Your task to perform on an android device: star an email in the gmail app Image 0: 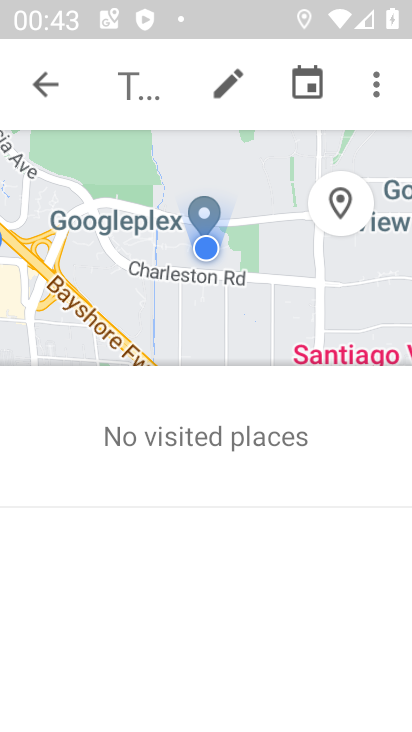
Step 0: press home button
Your task to perform on an android device: star an email in the gmail app Image 1: 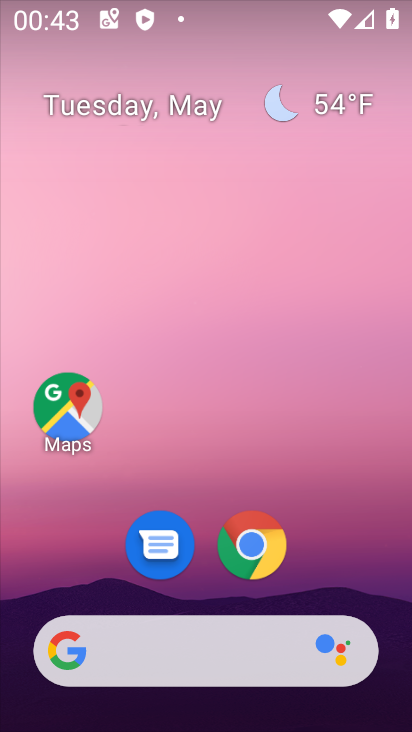
Step 1: drag from (347, 298) to (328, 41)
Your task to perform on an android device: star an email in the gmail app Image 2: 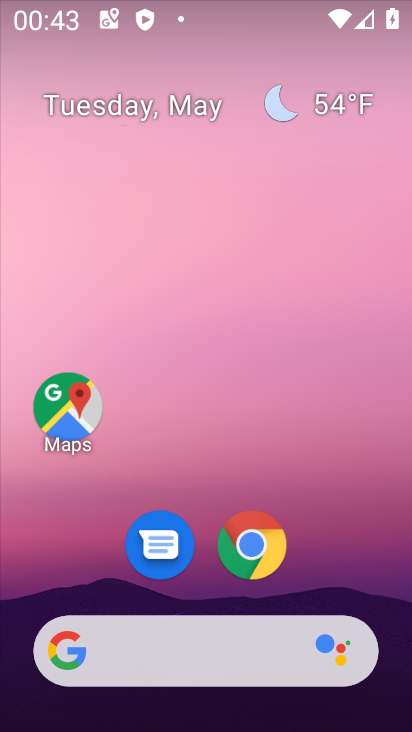
Step 2: drag from (307, 602) to (303, 187)
Your task to perform on an android device: star an email in the gmail app Image 3: 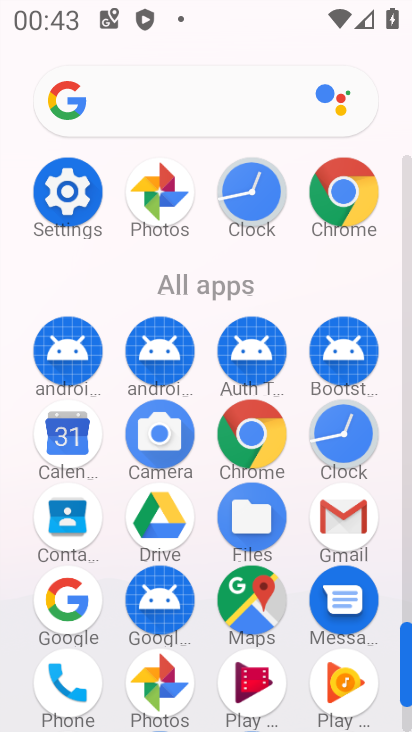
Step 3: click (340, 524)
Your task to perform on an android device: star an email in the gmail app Image 4: 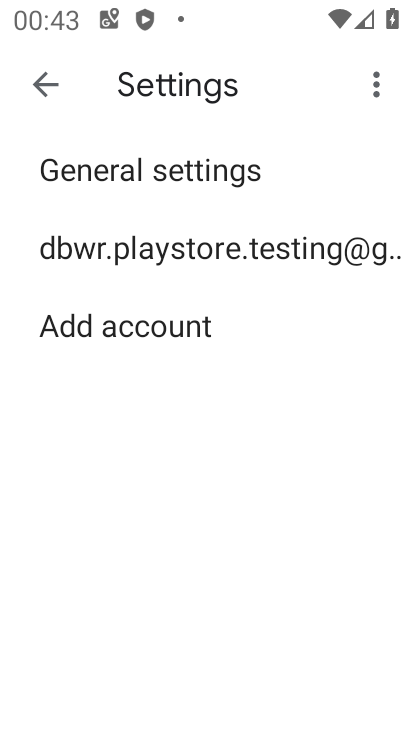
Step 4: click (60, 94)
Your task to perform on an android device: star an email in the gmail app Image 5: 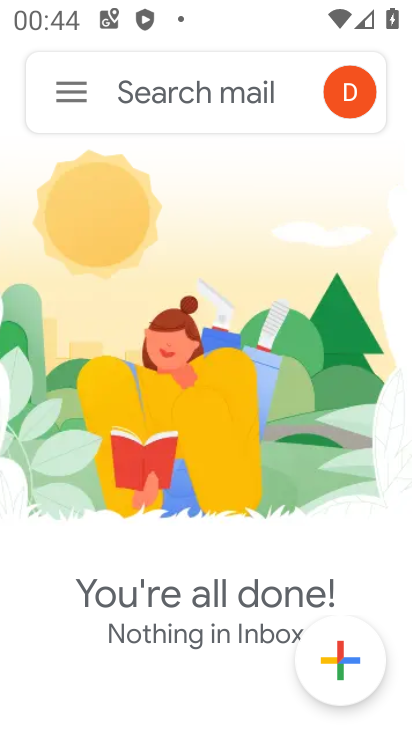
Step 5: click (58, 80)
Your task to perform on an android device: star an email in the gmail app Image 6: 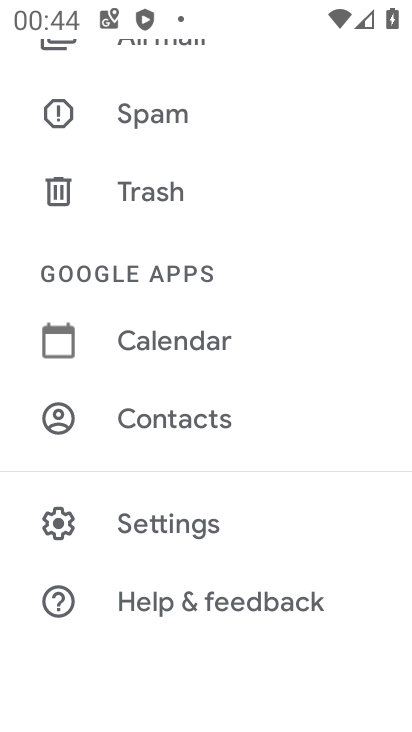
Step 6: drag from (207, 135) to (232, 396)
Your task to perform on an android device: star an email in the gmail app Image 7: 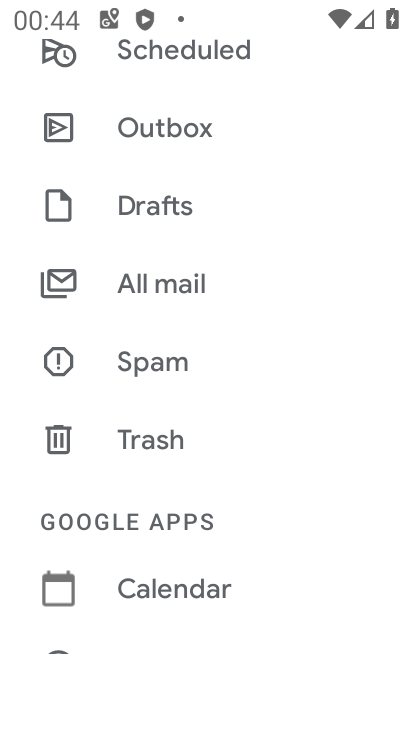
Step 7: click (217, 287)
Your task to perform on an android device: star an email in the gmail app Image 8: 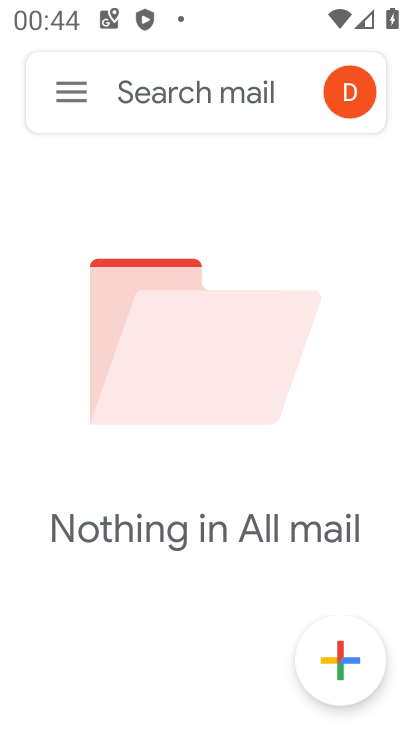
Step 8: task complete